Your task to perform on an android device: Open maps Image 0: 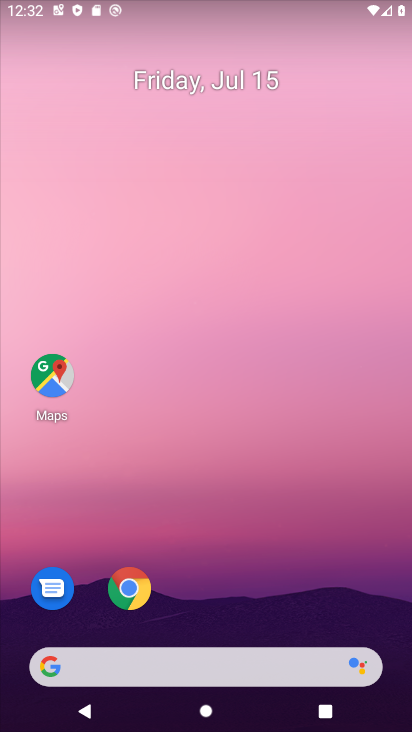
Step 0: click (52, 389)
Your task to perform on an android device: Open maps Image 1: 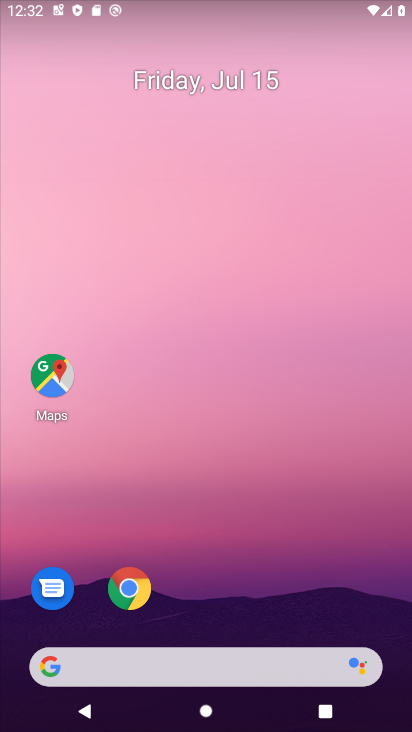
Step 1: click (52, 389)
Your task to perform on an android device: Open maps Image 2: 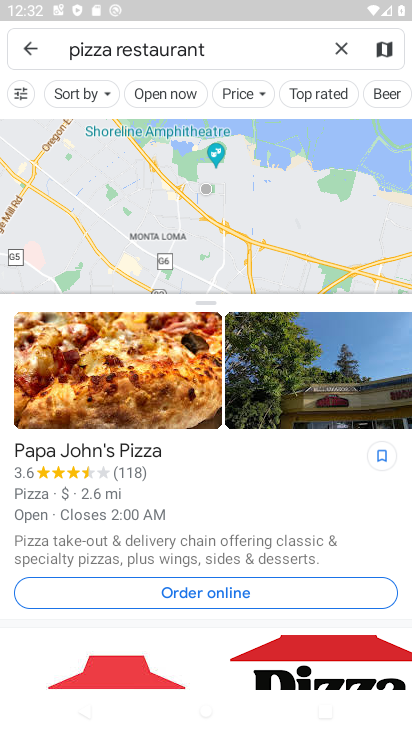
Step 2: task complete